Your task to perform on an android device: Open Chrome and go to the settings page Image 0: 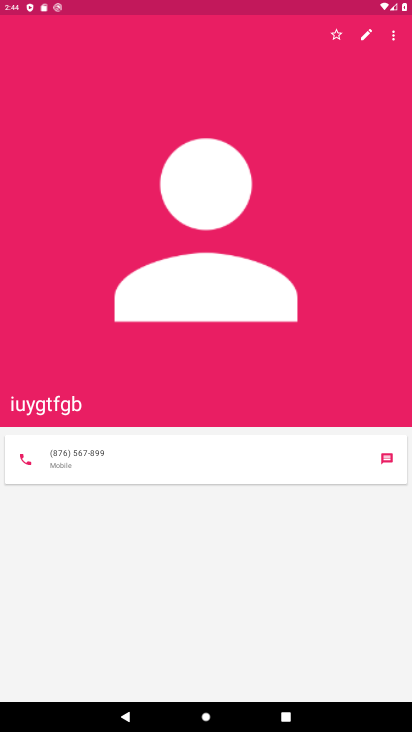
Step 0: press home button
Your task to perform on an android device: Open Chrome and go to the settings page Image 1: 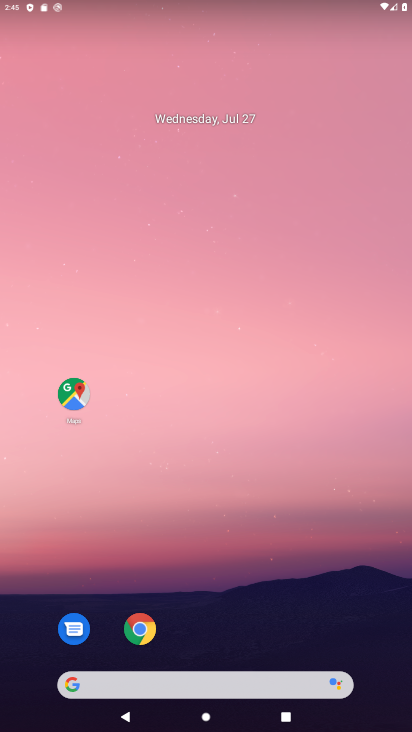
Step 1: click (139, 637)
Your task to perform on an android device: Open Chrome and go to the settings page Image 2: 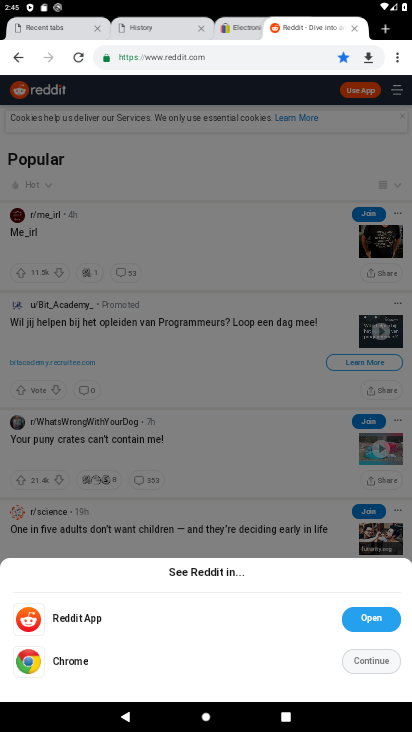
Step 2: click (404, 57)
Your task to perform on an android device: Open Chrome and go to the settings page Image 3: 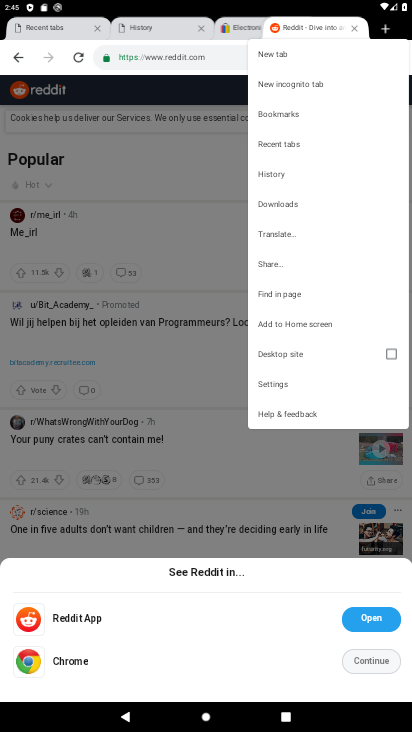
Step 3: click (274, 394)
Your task to perform on an android device: Open Chrome and go to the settings page Image 4: 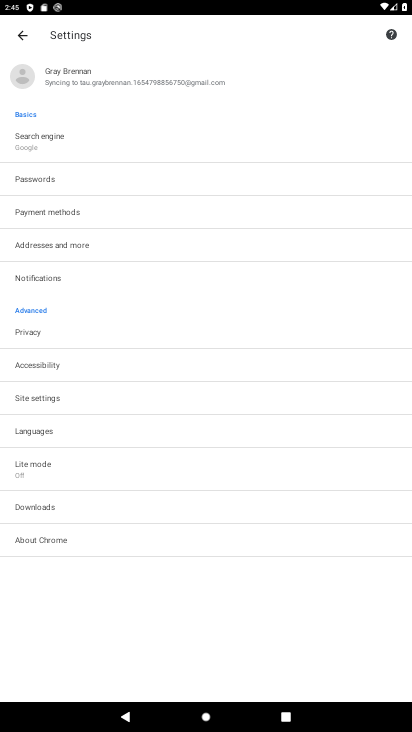
Step 4: task complete